Your task to perform on an android device: Open battery settings Image 0: 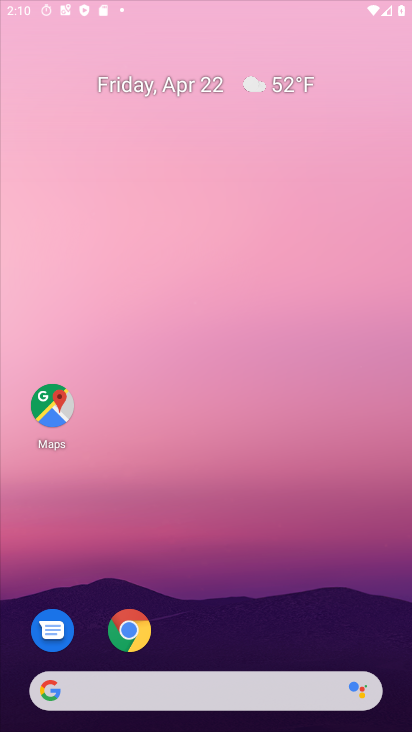
Step 0: click (357, 157)
Your task to perform on an android device: Open battery settings Image 1: 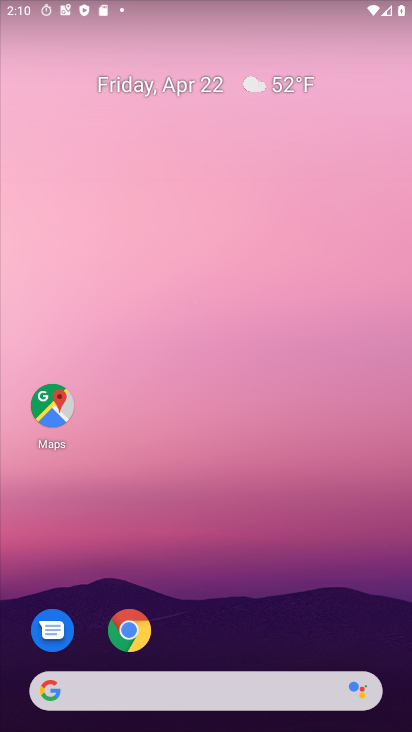
Step 1: drag from (372, 638) to (312, 97)
Your task to perform on an android device: Open battery settings Image 2: 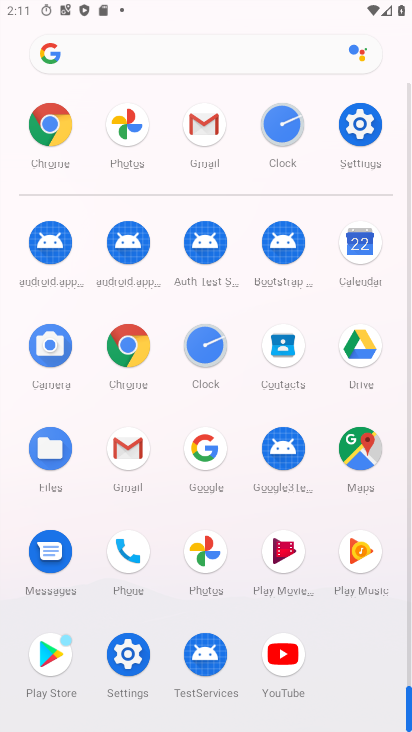
Step 2: click (349, 123)
Your task to perform on an android device: Open battery settings Image 3: 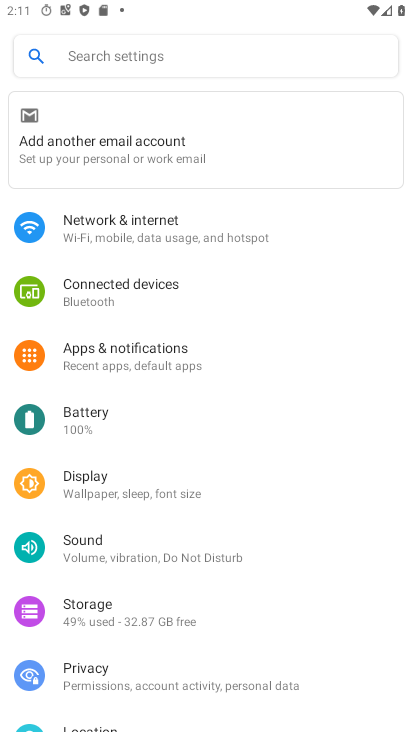
Step 3: click (42, 417)
Your task to perform on an android device: Open battery settings Image 4: 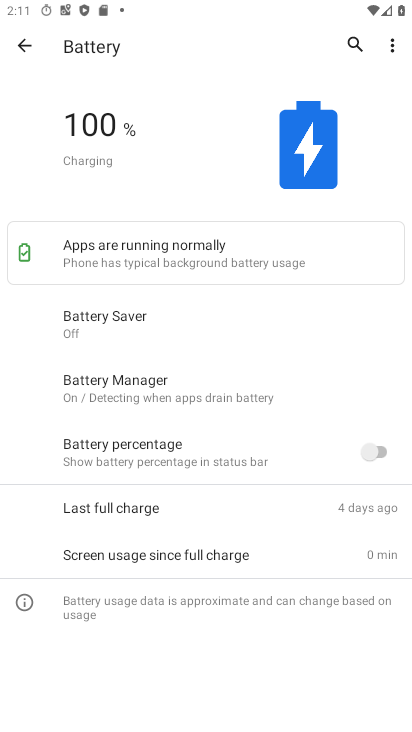
Step 4: click (391, 40)
Your task to perform on an android device: Open battery settings Image 5: 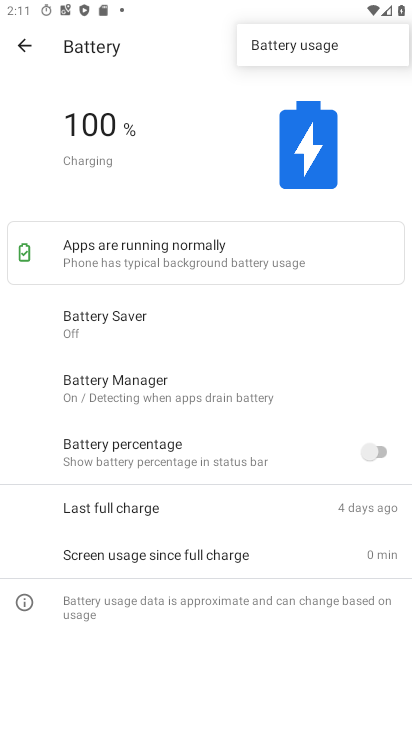
Step 5: click (345, 46)
Your task to perform on an android device: Open battery settings Image 6: 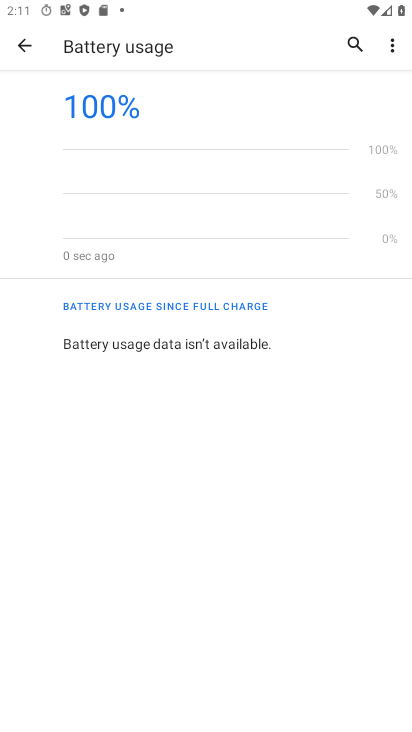
Step 6: task complete